Your task to perform on an android device: Do I have any events this weekend? Image 0: 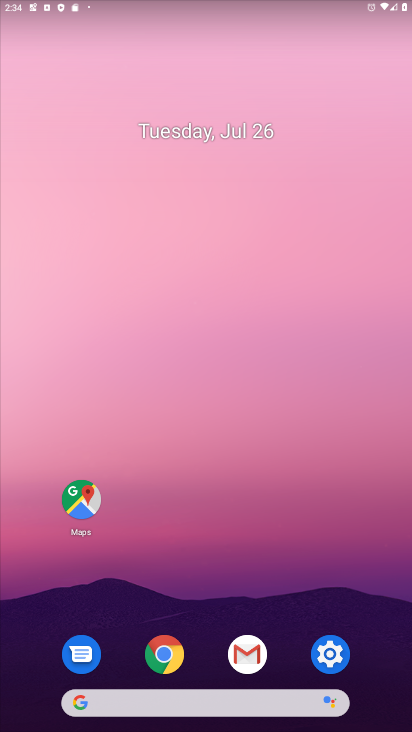
Step 0: drag from (221, 698) to (282, 113)
Your task to perform on an android device: Do I have any events this weekend? Image 1: 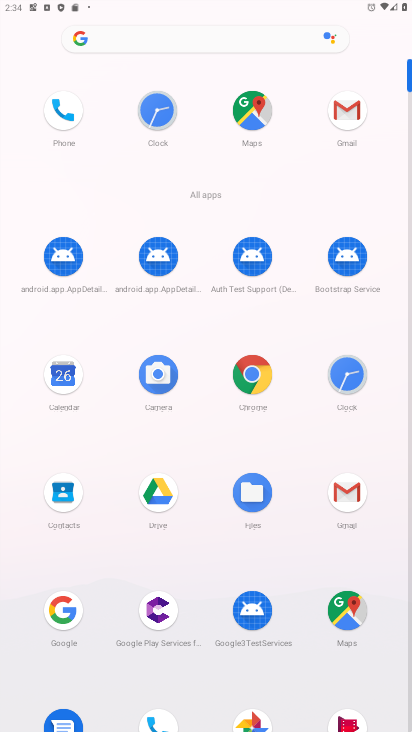
Step 1: click (48, 388)
Your task to perform on an android device: Do I have any events this weekend? Image 2: 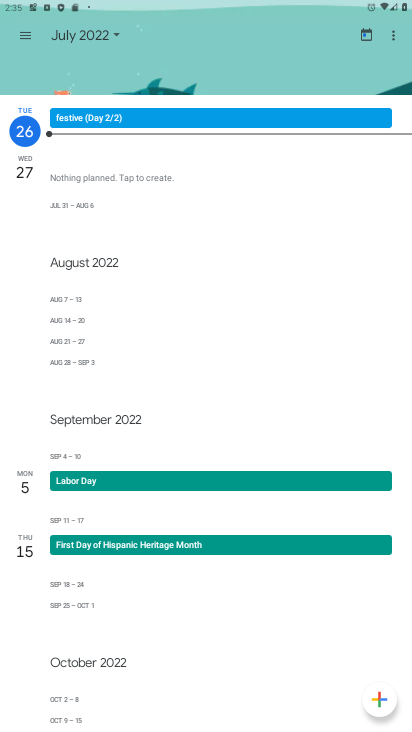
Step 2: task complete